Your task to perform on an android device: stop showing notifications on the lock screen Image 0: 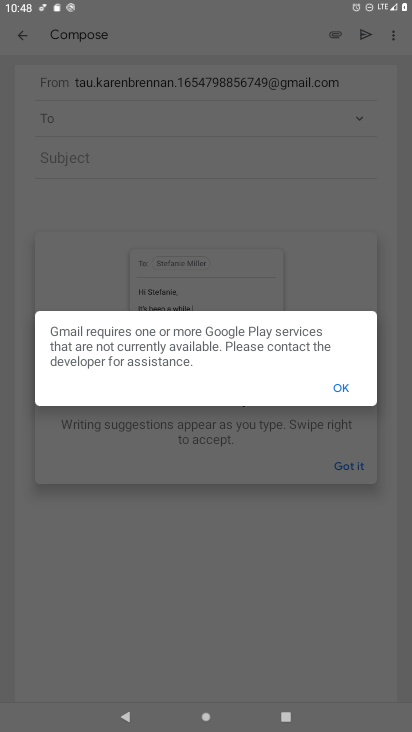
Step 0: press home button
Your task to perform on an android device: stop showing notifications on the lock screen Image 1: 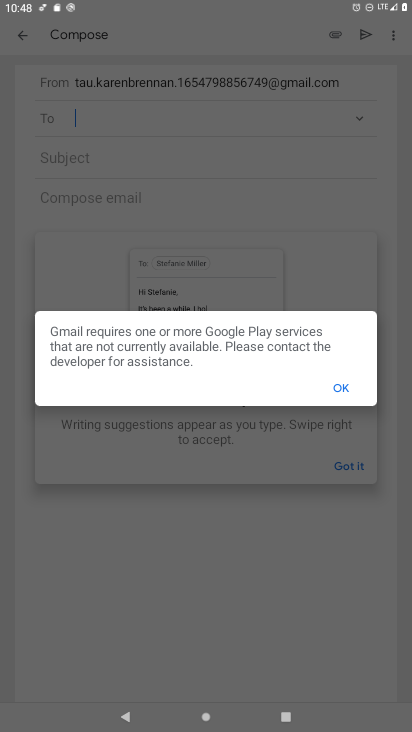
Step 1: drag from (329, 673) to (192, 20)
Your task to perform on an android device: stop showing notifications on the lock screen Image 2: 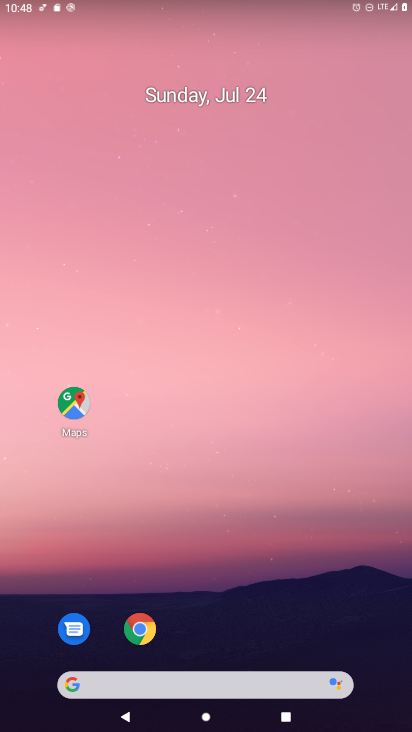
Step 2: drag from (387, 669) to (268, 16)
Your task to perform on an android device: stop showing notifications on the lock screen Image 3: 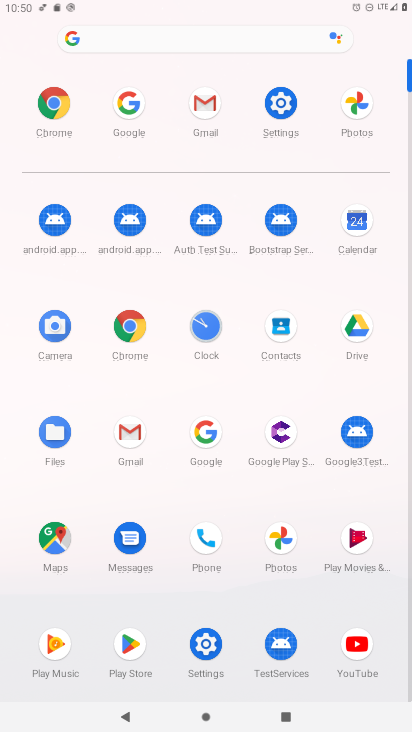
Step 3: click (199, 640)
Your task to perform on an android device: stop showing notifications on the lock screen Image 4: 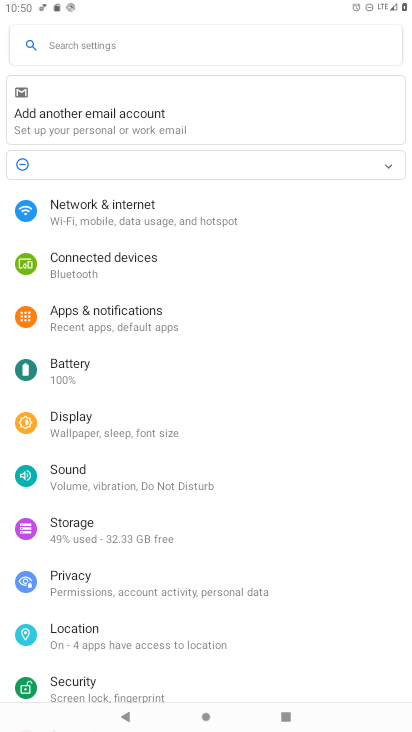
Step 4: click (171, 322)
Your task to perform on an android device: stop showing notifications on the lock screen Image 5: 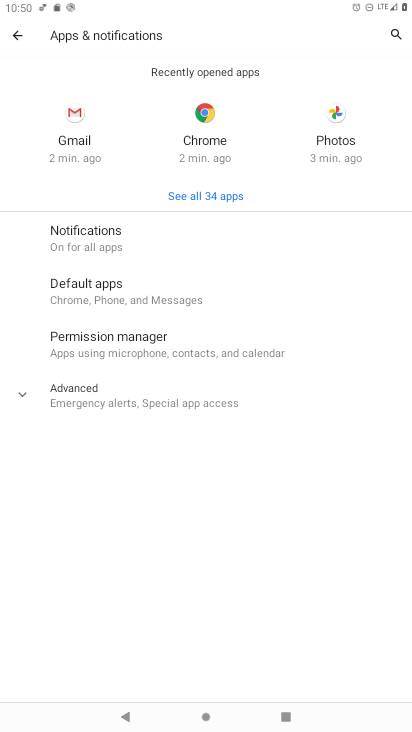
Step 5: click (117, 247)
Your task to perform on an android device: stop showing notifications on the lock screen Image 6: 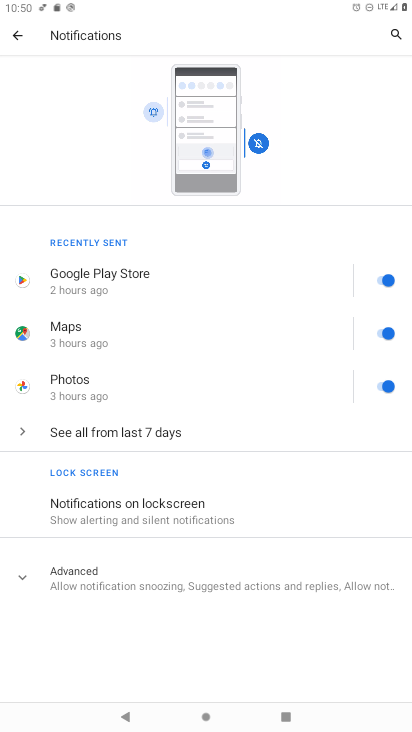
Step 6: click (109, 505)
Your task to perform on an android device: stop showing notifications on the lock screen Image 7: 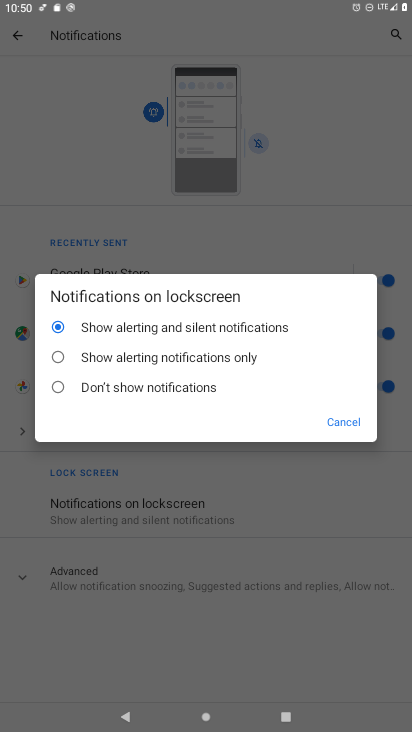
Step 7: click (114, 387)
Your task to perform on an android device: stop showing notifications on the lock screen Image 8: 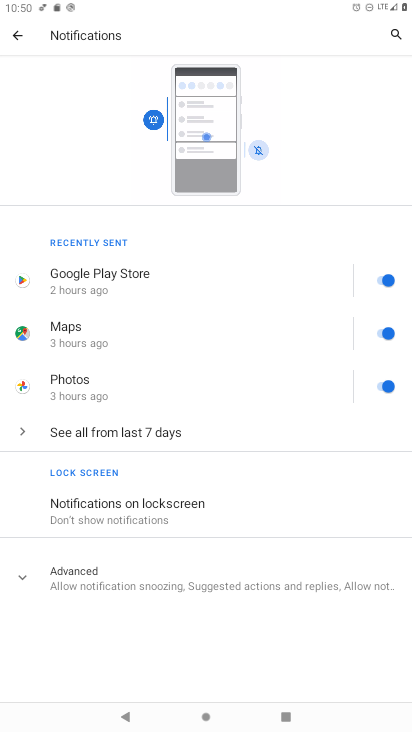
Step 8: task complete